Your task to perform on an android device: Open Chrome and go to the settings page Image 0: 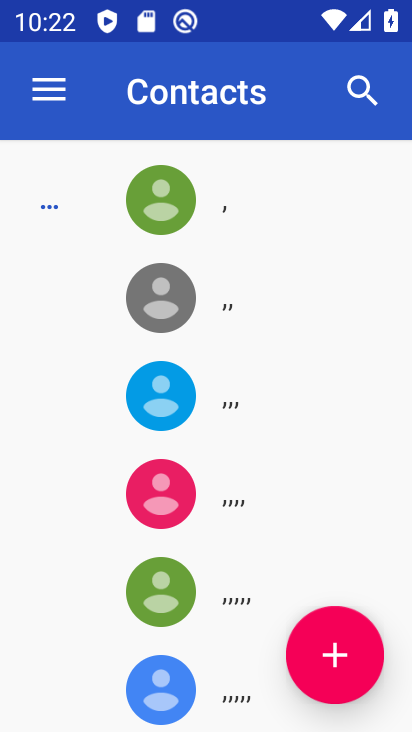
Step 0: press home button
Your task to perform on an android device: Open Chrome and go to the settings page Image 1: 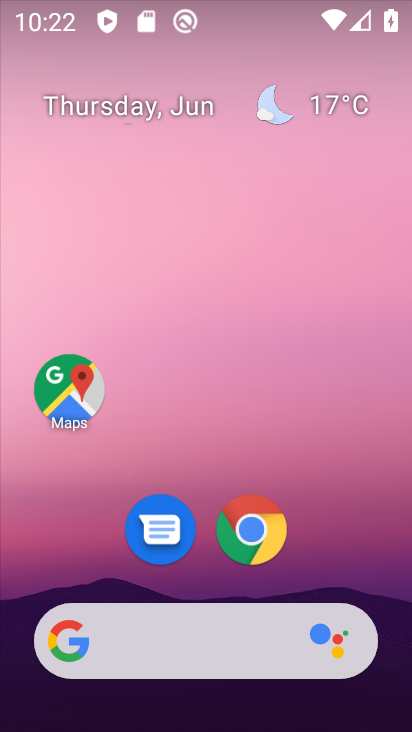
Step 1: click (250, 532)
Your task to perform on an android device: Open Chrome and go to the settings page Image 2: 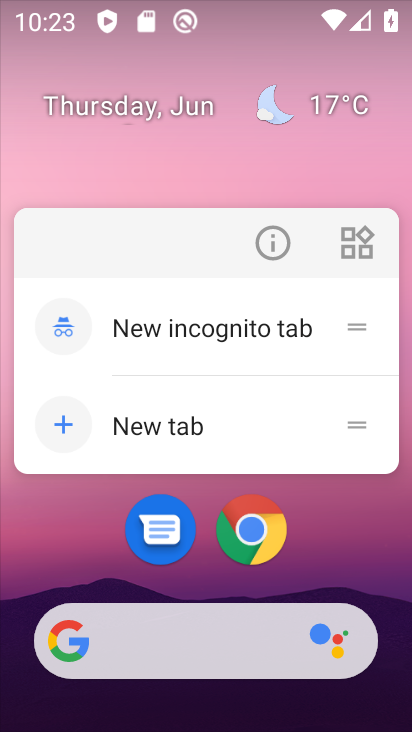
Step 2: click (249, 522)
Your task to perform on an android device: Open Chrome and go to the settings page Image 3: 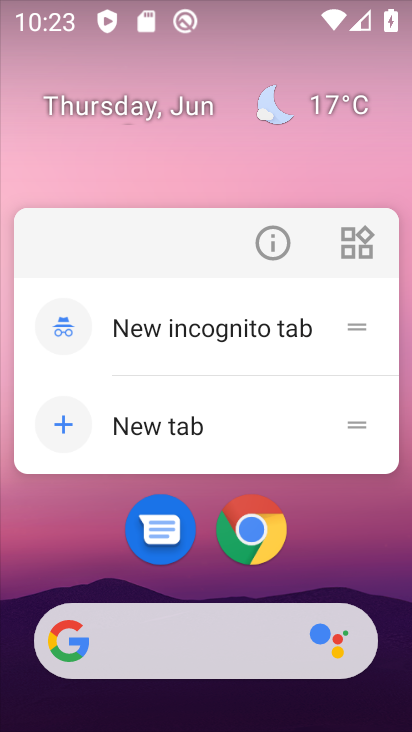
Step 3: click (256, 517)
Your task to perform on an android device: Open Chrome and go to the settings page Image 4: 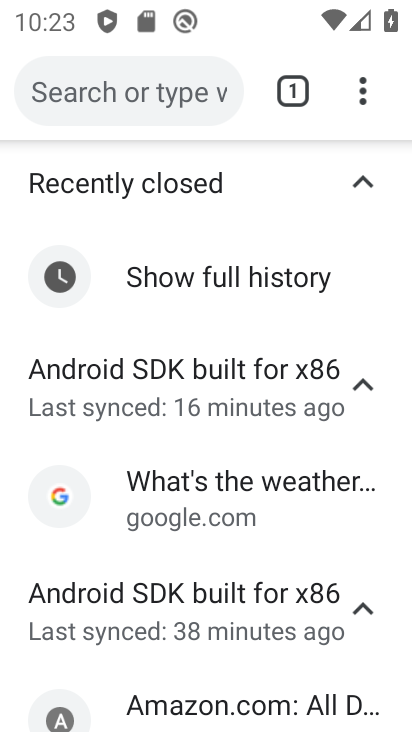
Step 4: click (359, 104)
Your task to perform on an android device: Open Chrome and go to the settings page Image 5: 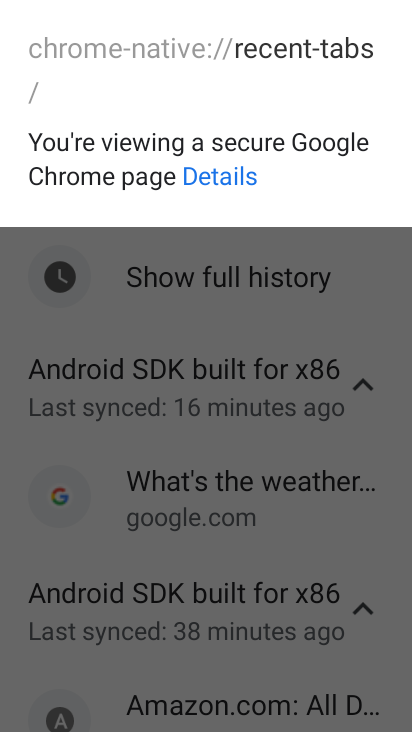
Step 5: click (365, 352)
Your task to perform on an android device: Open Chrome and go to the settings page Image 6: 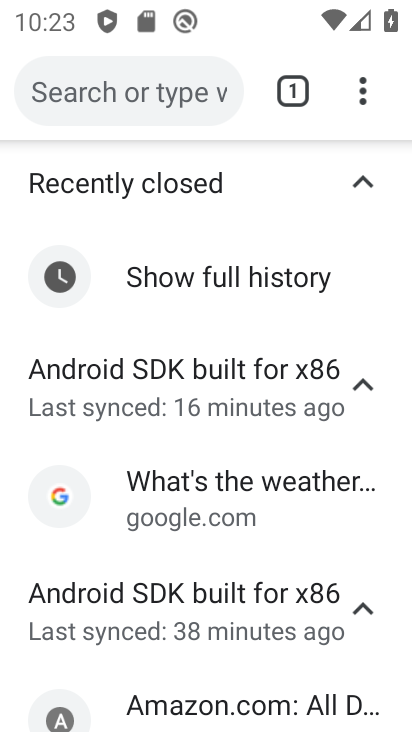
Step 6: click (353, 95)
Your task to perform on an android device: Open Chrome and go to the settings page Image 7: 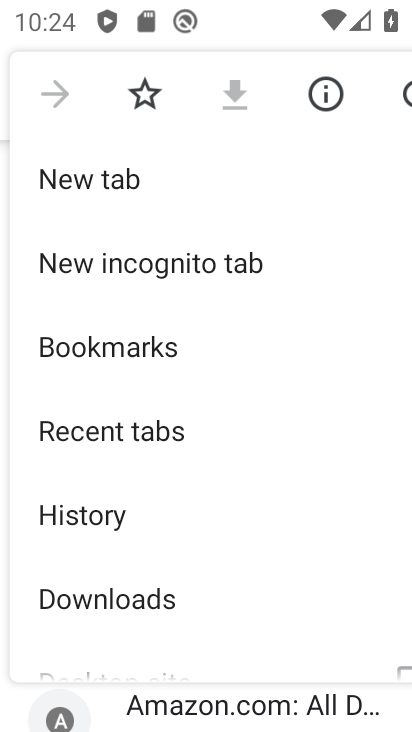
Step 7: drag from (114, 599) to (97, 141)
Your task to perform on an android device: Open Chrome and go to the settings page Image 8: 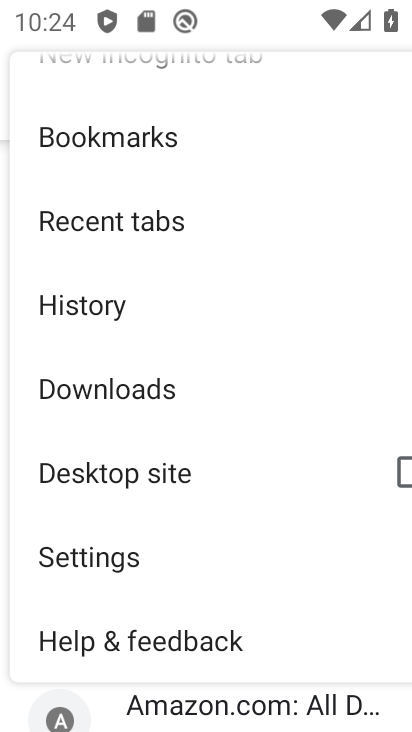
Step 8: click (150, 550)
Your task to perform on an android device: Open Chrome and go to the settings page Image 9: 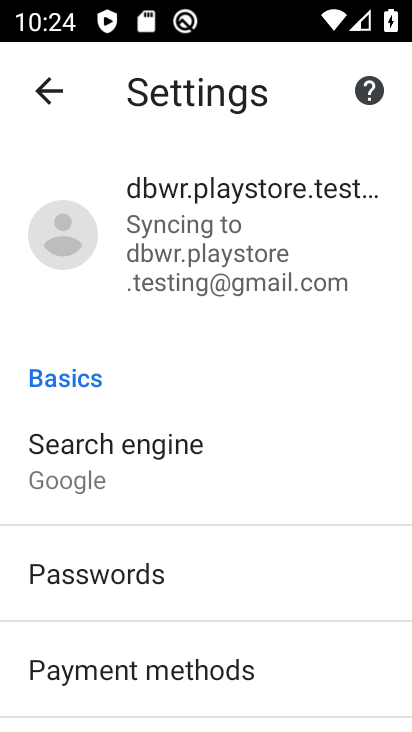
Step 9: task complete